Your task to perform on an android device: Add "panasonic triple a" to the cart on target.com, then select checkout. Image 0: 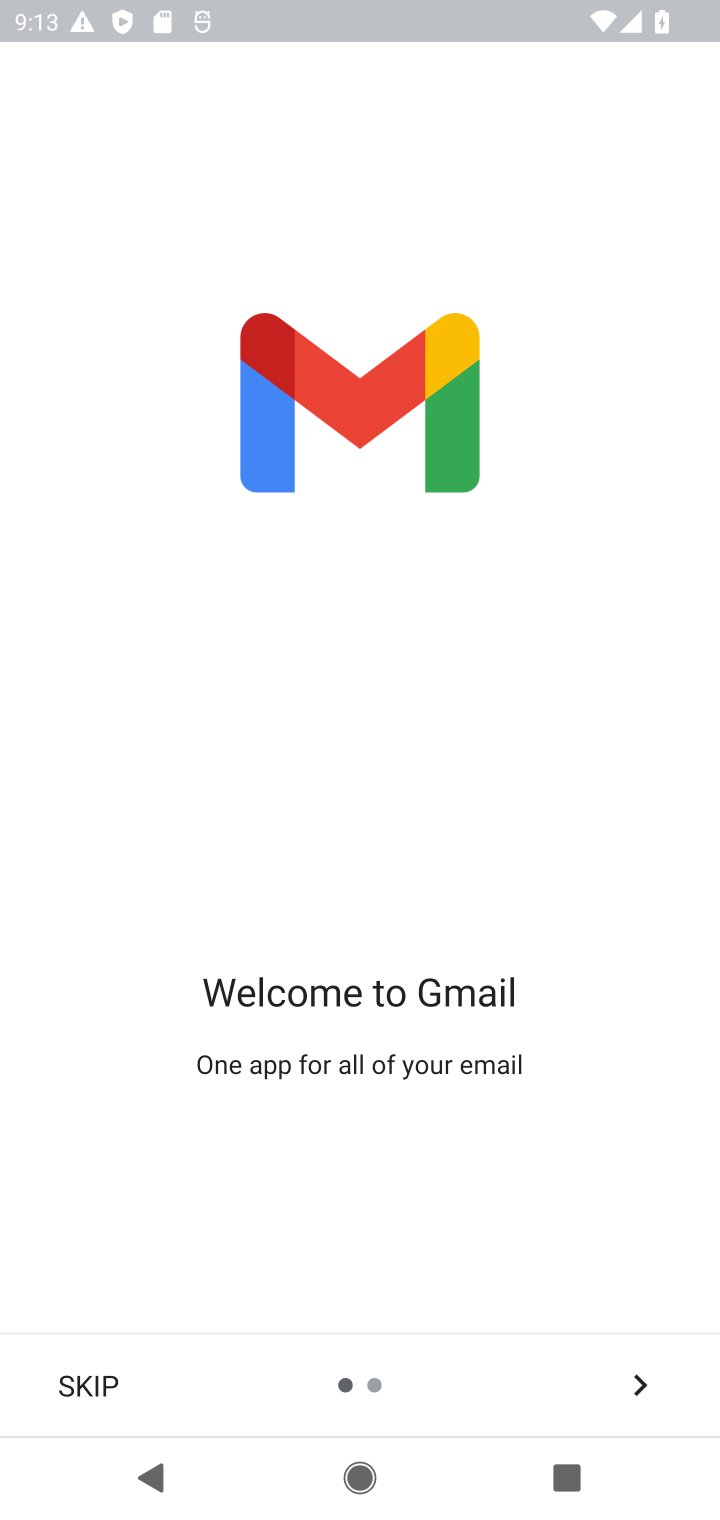
Step 0: press home button
Your task to perform on an android device: Add "panasonic triple a" to the cart on target.com, then select checkout. Image 1: 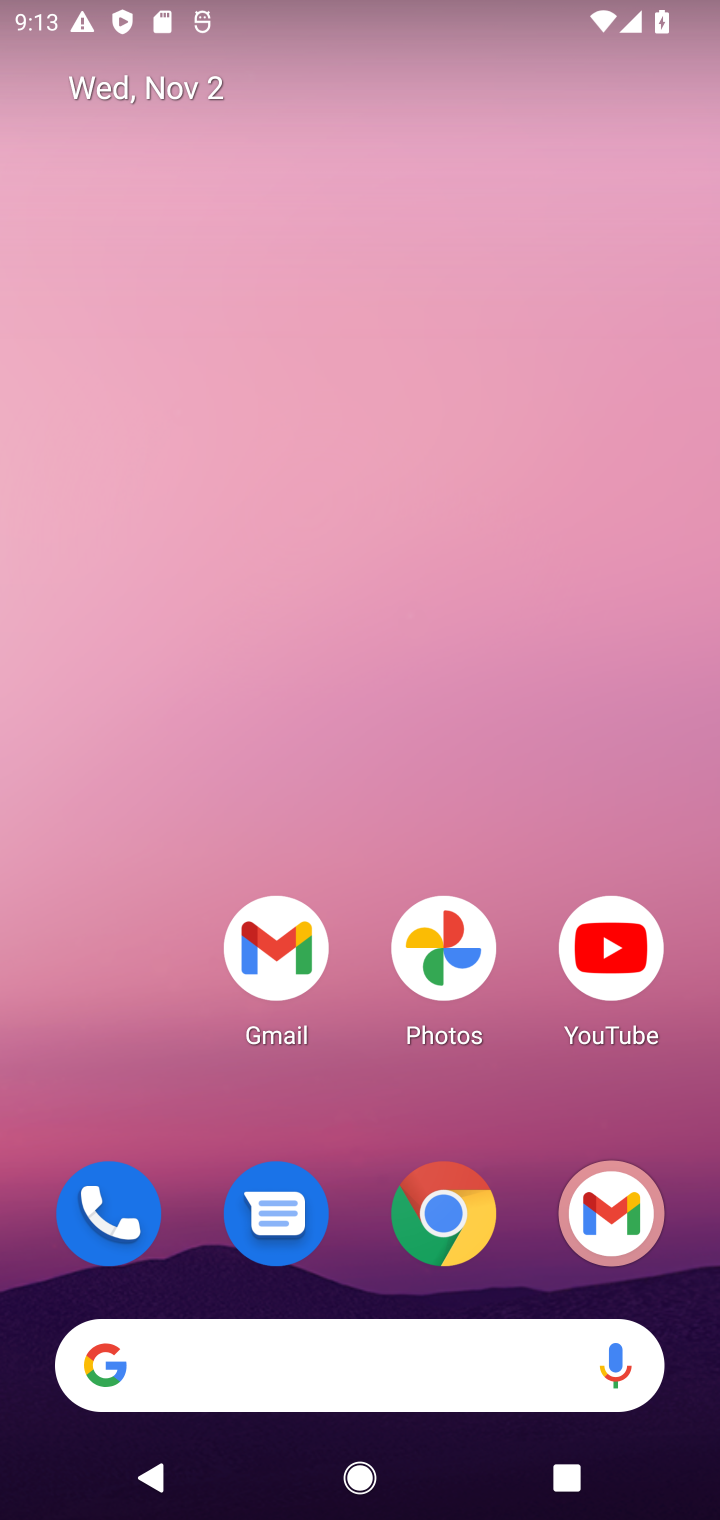
Step 1: click (438, 1206)
Your task to perform on an android device: Add "panasonic triple a" to the cart on target.com, then select checkout. Image 2: 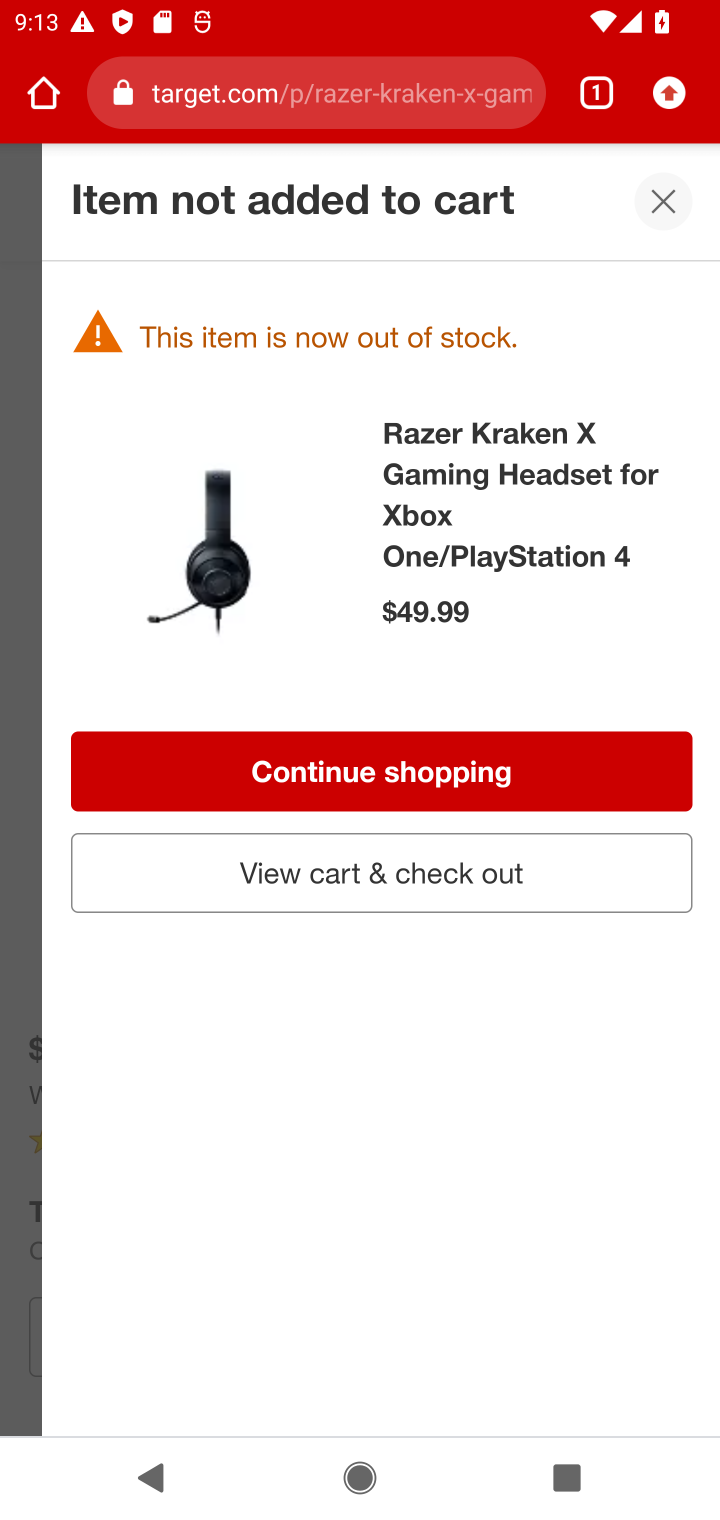
Step 2: click (664, 212)
Your task to perform on an android device: Add "panasonic triple a" to the cart on target.com, then select checkout. Image 3: 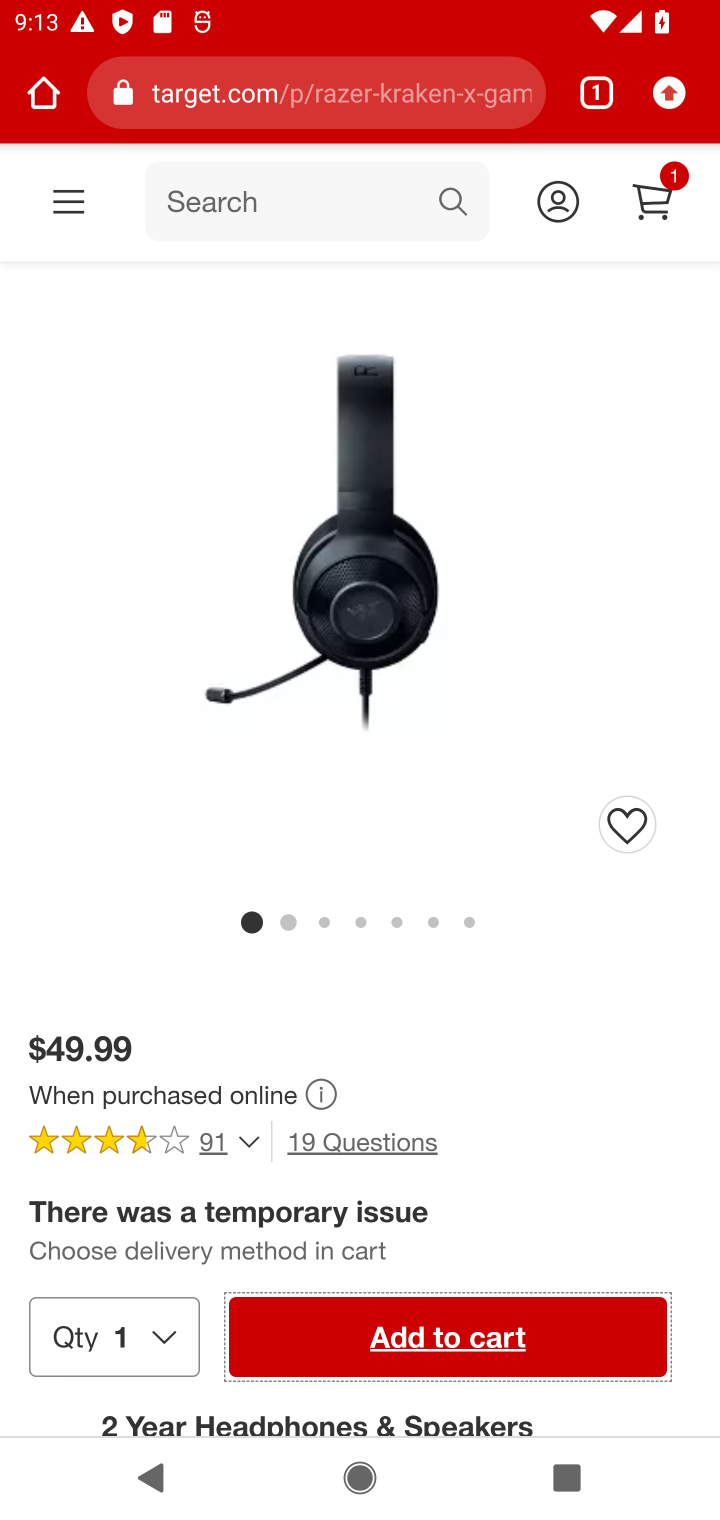
Step 3: click (443, 198)
Your task to perform on an android device: Add "panasonic triple a" to the cart on target.com, then select checkout. Image 4: 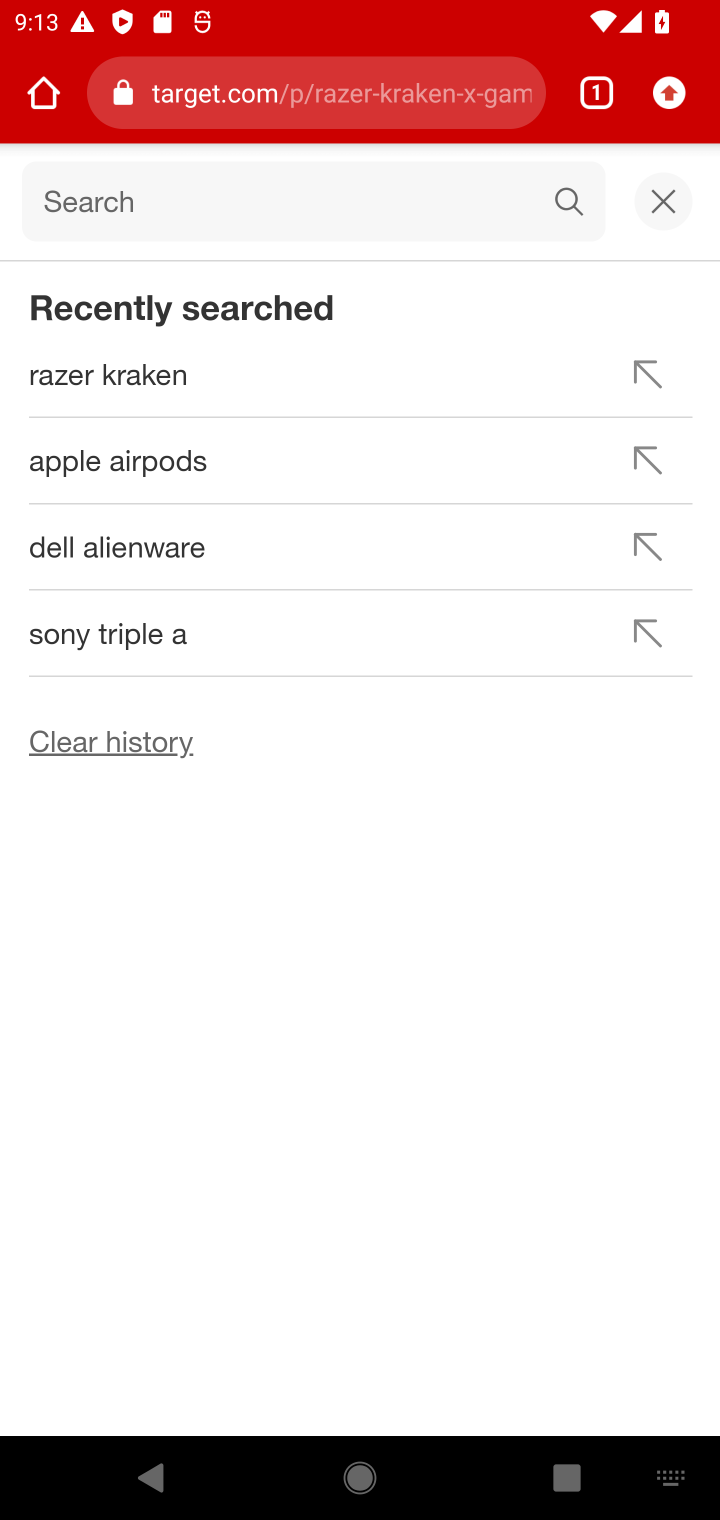
Step 4: type "panasonic triple a"
Your task to perform on an android device: Add "panasonic triple a" to the cart on target.com, then select checkout. Image 5: 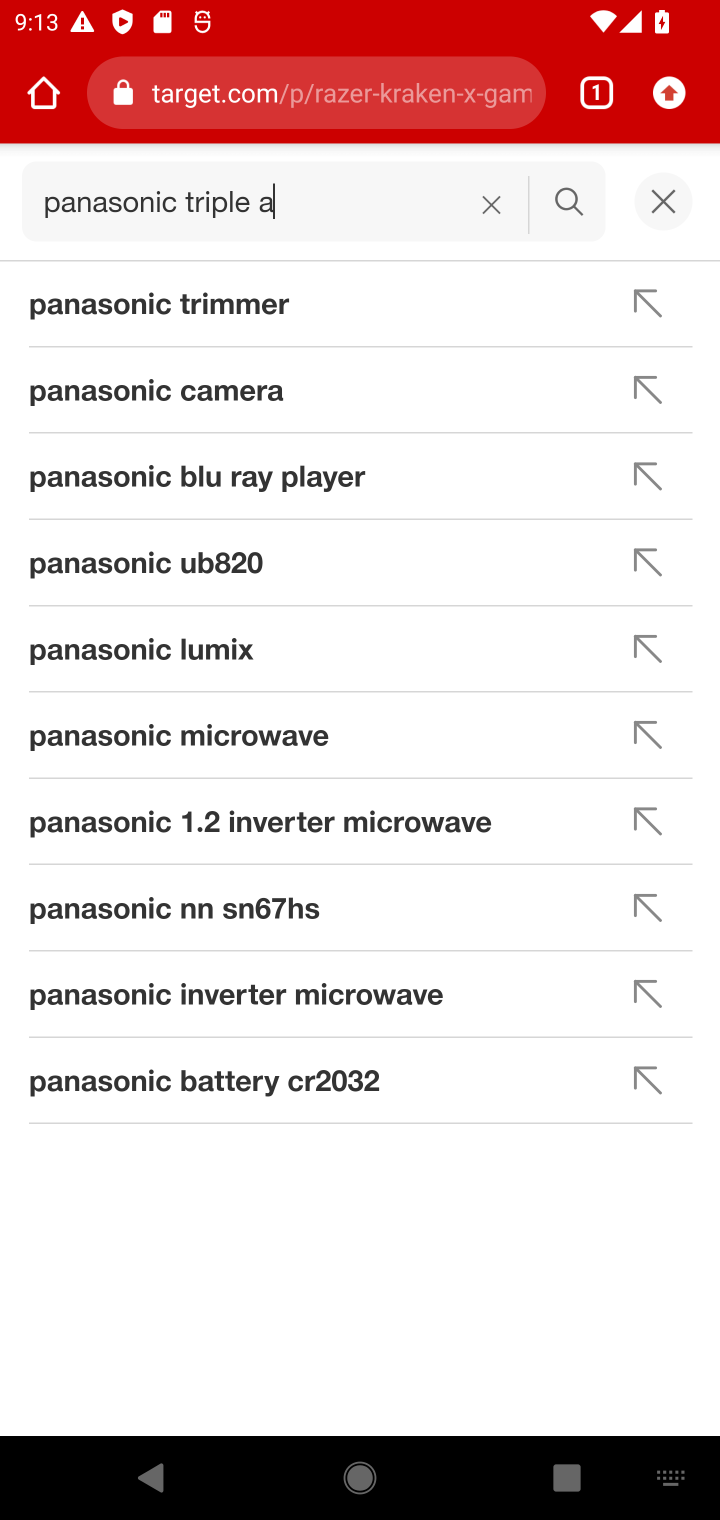
Step 5: click (562, 209)
Your task to perform on an android device: Add "panasonic triple a" to the cart on target.com, then select checkout. Image 6: 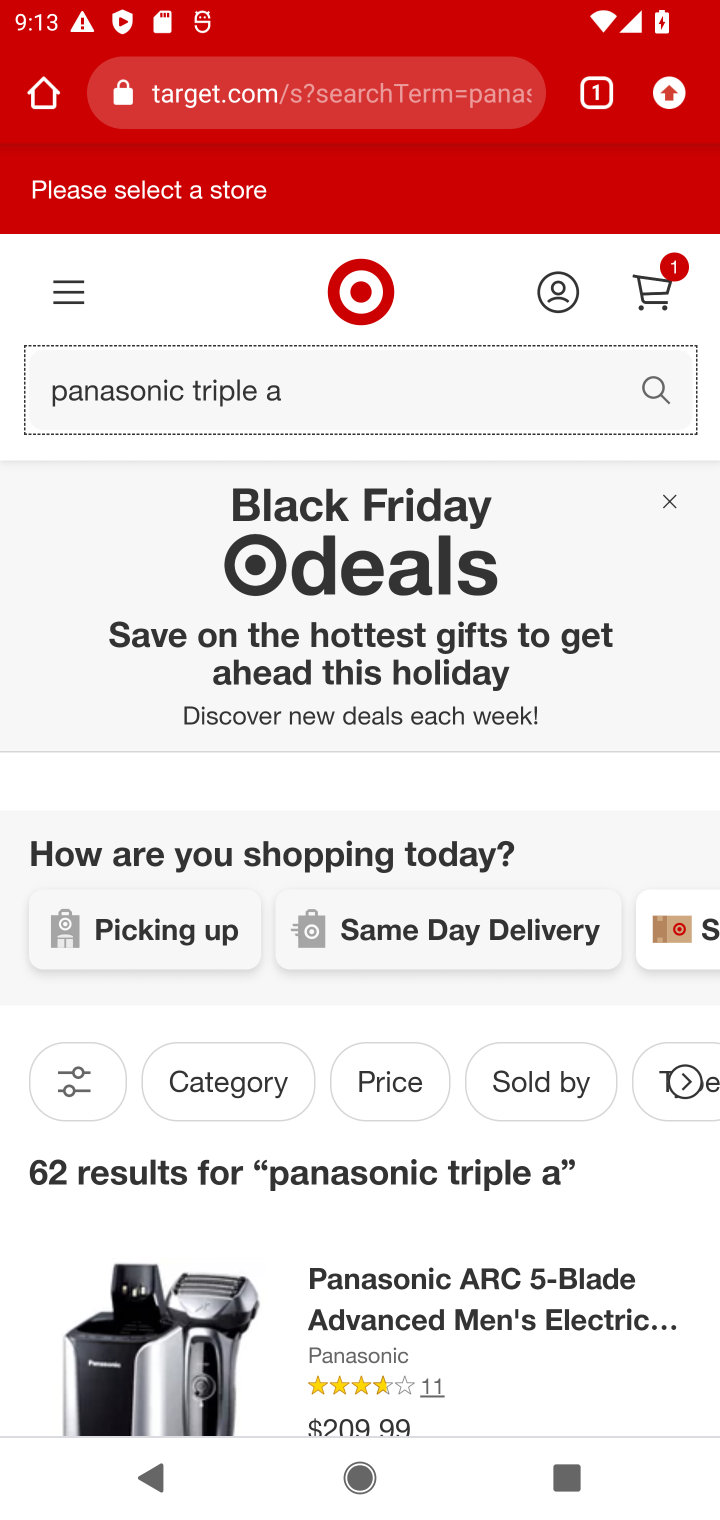
Step 6: task complete